Your task to perform on an android device: Go to settings Image 0: 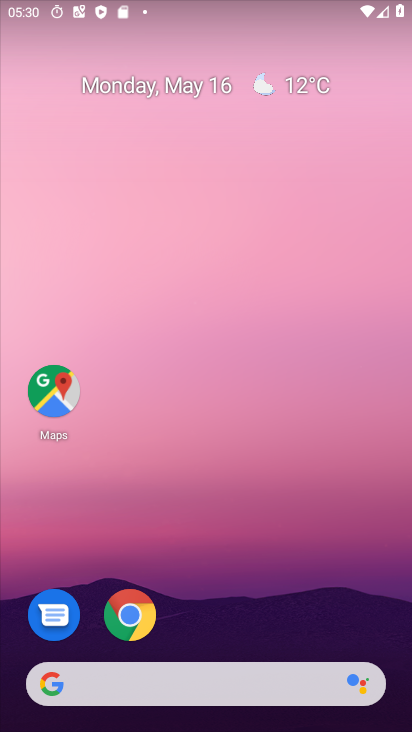
Step 0: drag from (262, 662) to (148, 102)
Your task to perform on an android device: Go to settings Image 1: 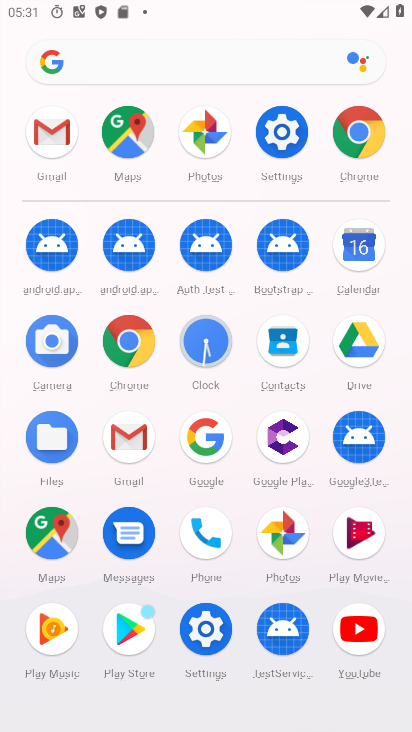
Step 1: click (289, 139)
Your task to perform on an android device: Go to settings Image 2: 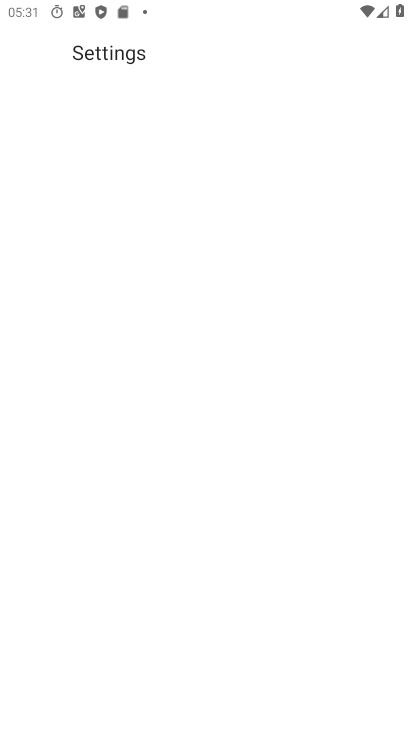
Step 2: click (288, 140)
Your task to perform on an android device: Go to settings Image 3: 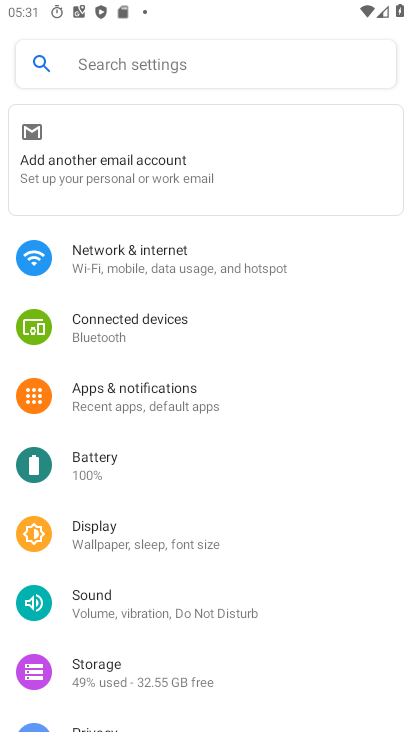
Step 3: task complete